Your task to perform on an android device: Open calendar and show me the second week of next month Image 0: 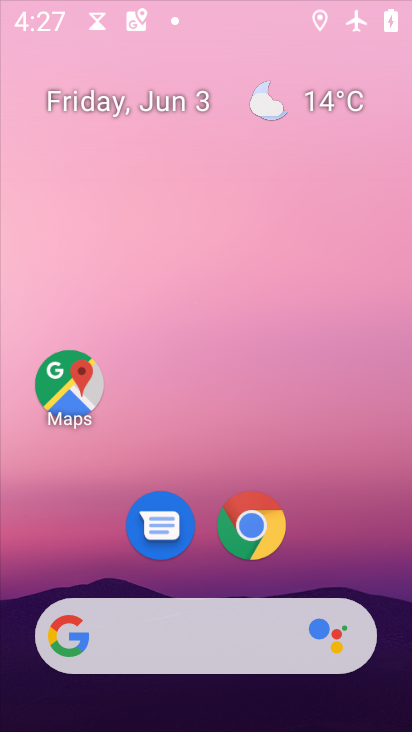
Step 0: drag from (313, 201) to (333, 89)
Your task to perform on an android device: Open calendar and show me the second week of next month Image 1: 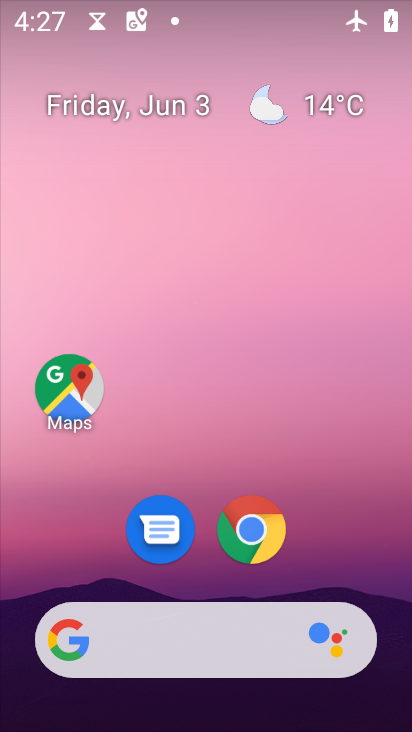
Step 1: drag from (331, 594) to (354, 16)
Your task to perform on an android device: Open calendar and show me the second week of next month Image 2: 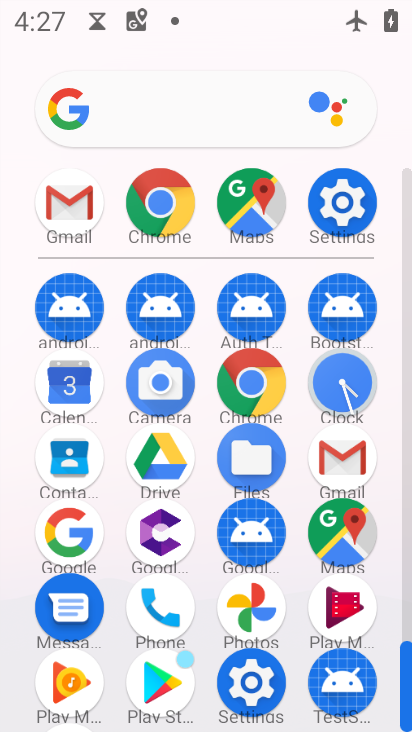
Step 2: click (40, 404)
Your task to perform on an android device: Open calendar and show me the second week of next month Image 3: 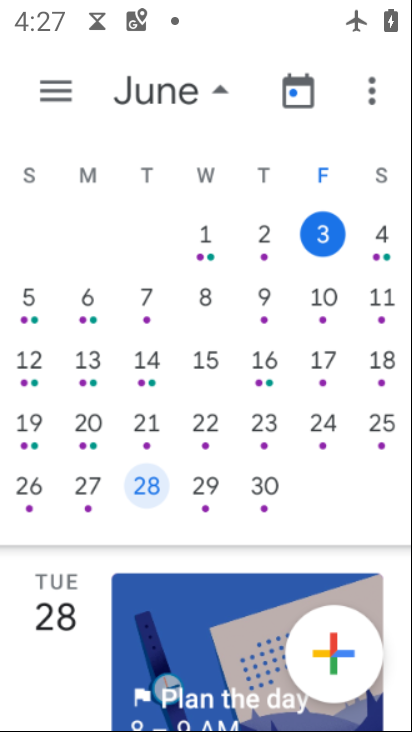
Step 3: drag from (302, 364) to (9, 237)
Your task to perform on an android device: Open calendar and show me the second week of next month Image 4: 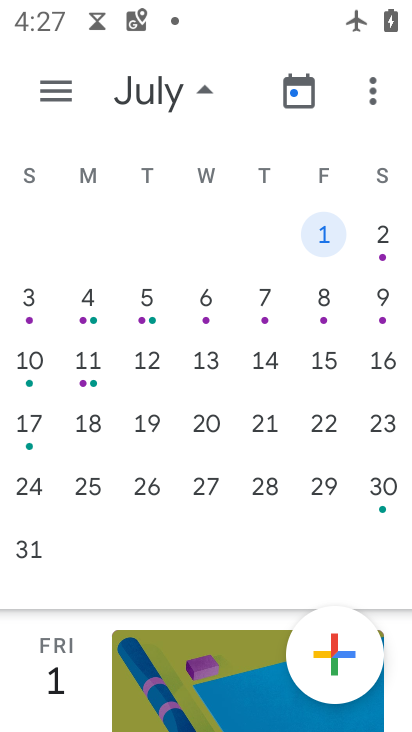
Step 4: click (271, 358)
Your task to perform on an android device: Open calendar and show me the second week of next month Image 5: 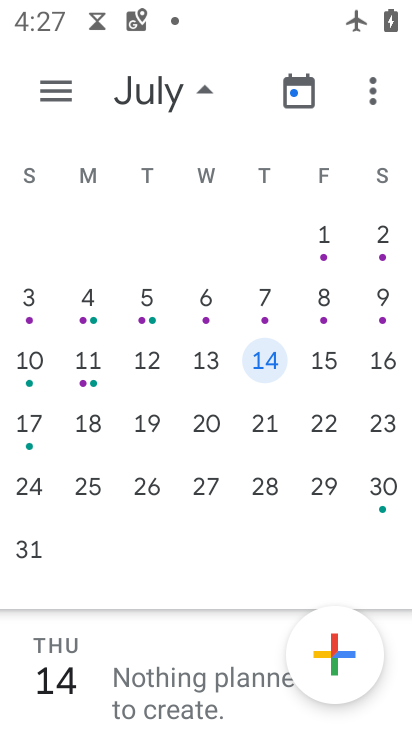
Step 5: task complete